Your task to perform on an android device: Search for vegetarian restaurants on Maps Image 0: 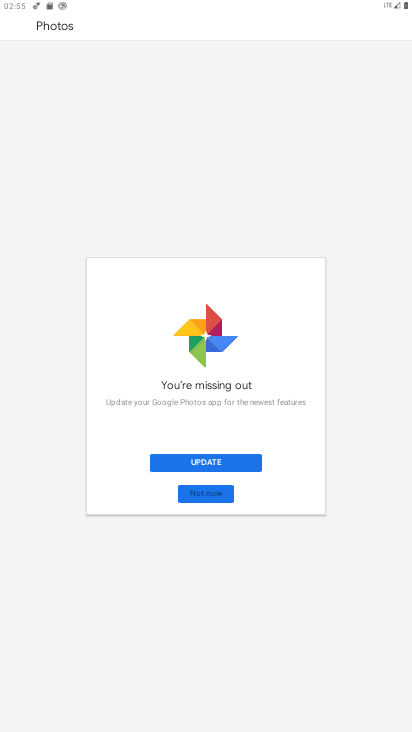
Step 0: press home button
Your task to perform on an android device: Search for vegetarian restaurants on Maps Image 1: 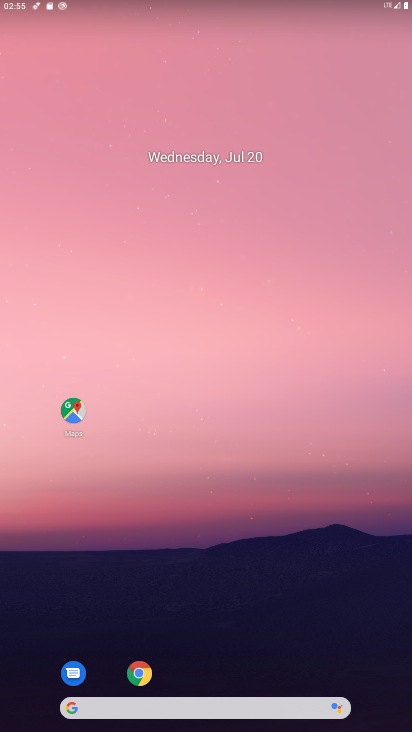
Step 1: click (70, 403)
Your task to perform on an android device: Search for vegetarian restaurants on Maps Image 2: 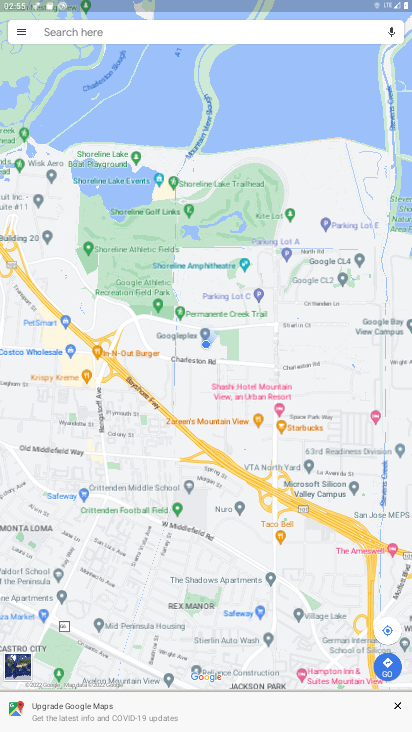
Step 2: click (209, 33)
Your task to perform on an android device: Search for vegetarian restaurants on Maps Image 3: 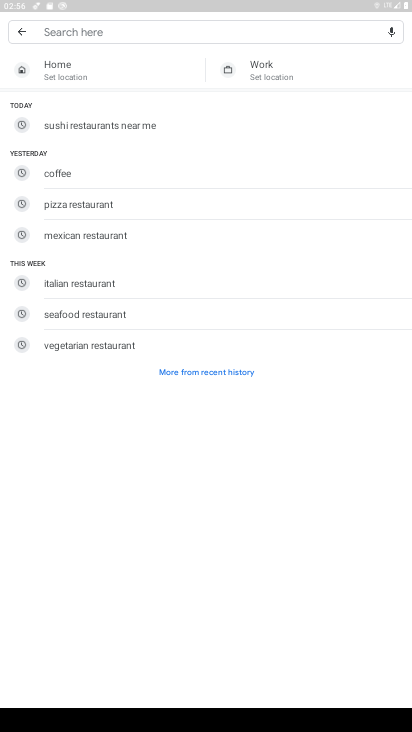
Step 3: type "Vegetarian restaurants"
Your task to perform on an android device: Search for vegetarian restaurants on Maps Image 4: 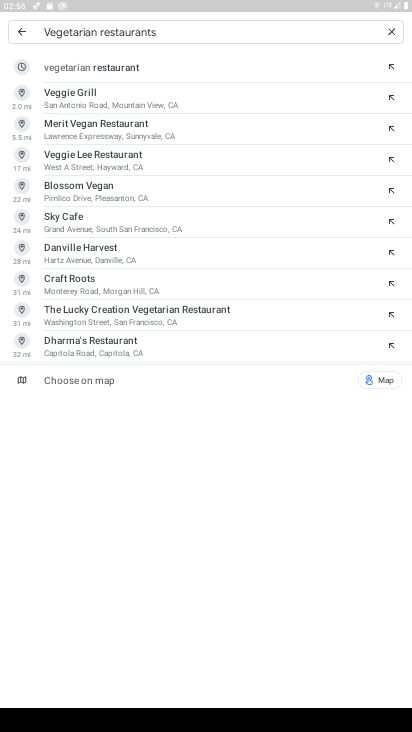
Step 4: click (151, 75)
Your task to perform on an android device: Search for vegetarian restaurants on Maps Image 5: 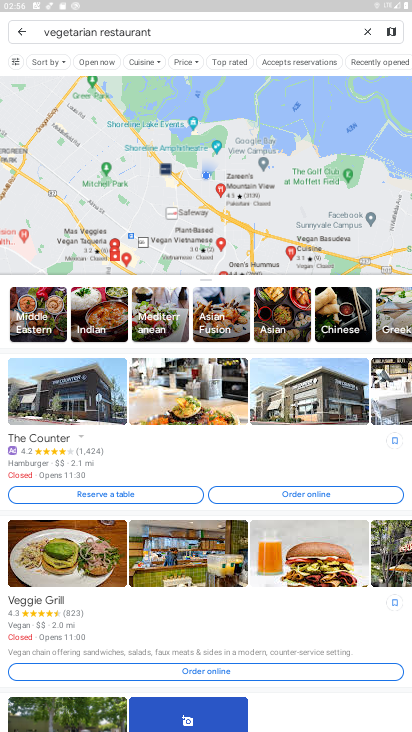
Step 5: task complete